Your task to perform on an android device: Turn on the flashlight Image 0: 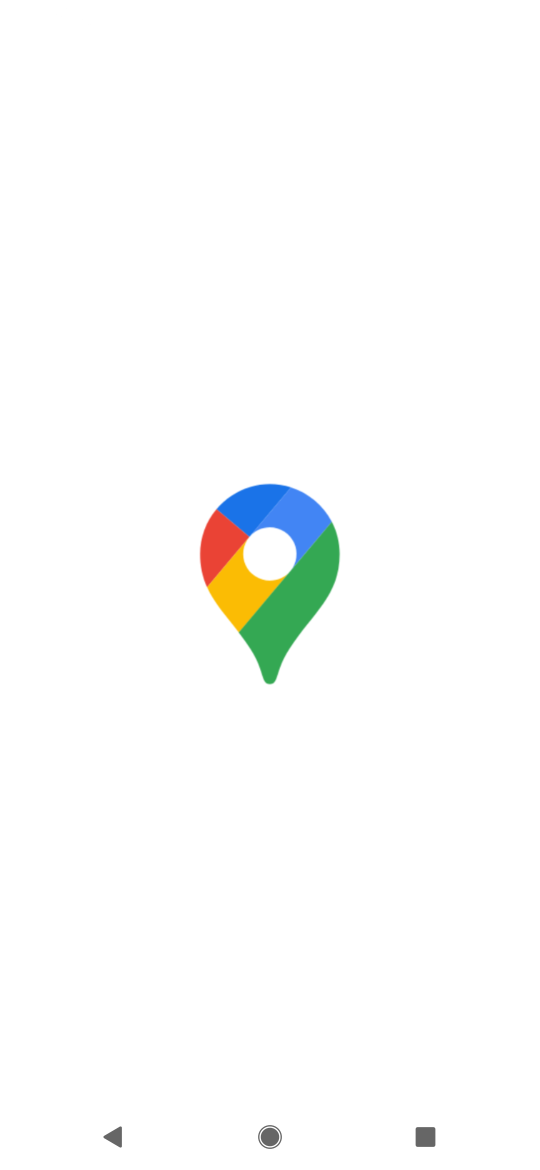
Step 0: press home button
Your task to perform on an android device: Turn on the flashlight Image 1: 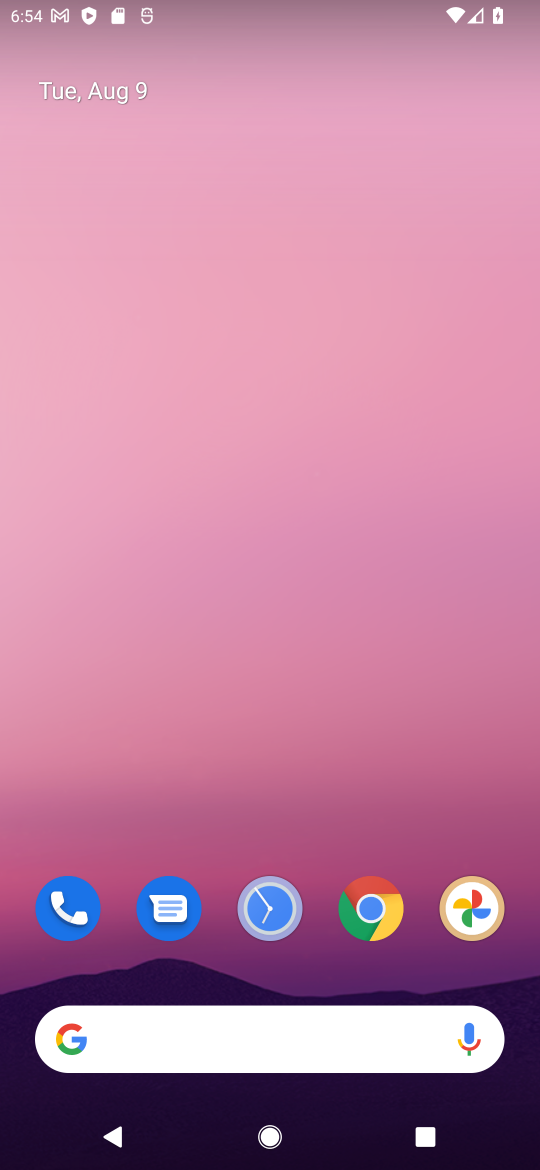
Step 1: drag from (281, 961) to (323, 227)
Your task to perform on an android device: Turn on the flashlight Image 2: 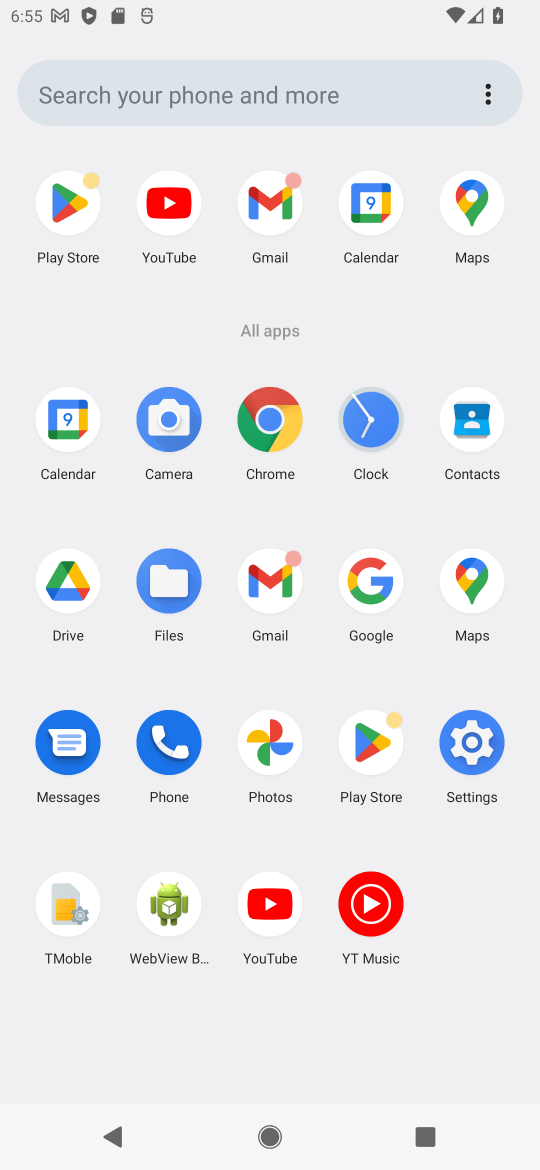
Step 2: click (467, 749)
Your task to perform on an android device: Turn on the flashlight Image 3: 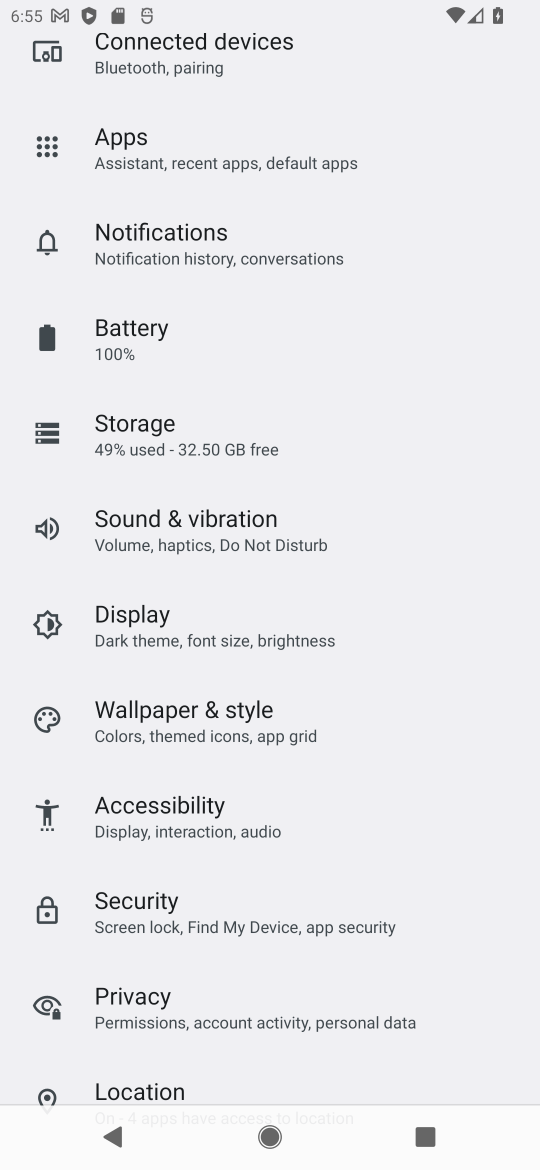
Step 3: task complete